Your task to perform on an android device: Search for jbl charge 4 on ebay, select the first entry, add it to the cart, then select checkout. Image 0: 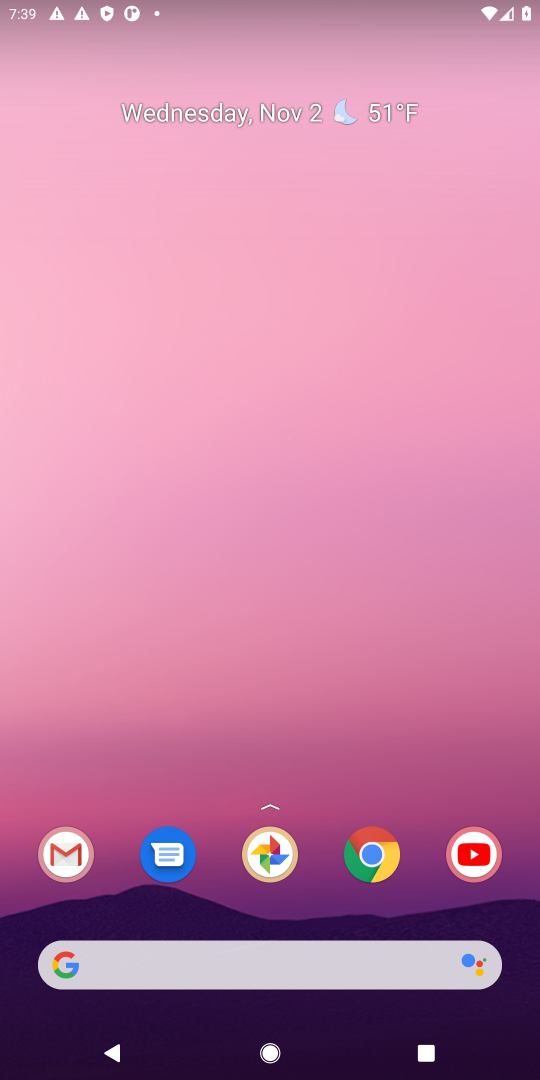
Step 0: click (361, 859)
Your task to perform on an android device: Search for jbl charge 4 on ebay, select the first entry, add it to the cart, then select checkout. Image 1: 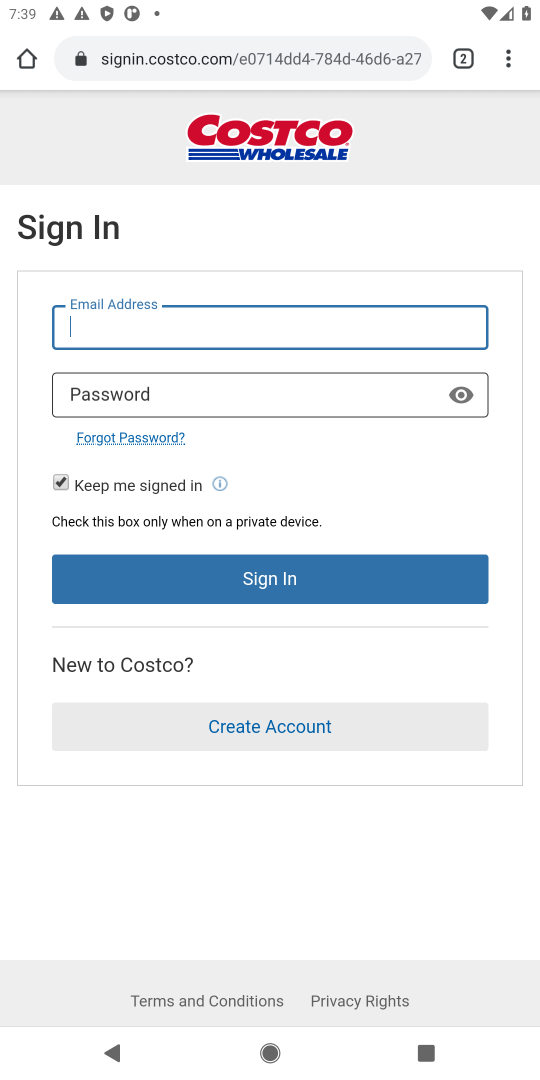
Step 1: click (456, 59)
Your task to perform on an android device: Search for jbl charge 4 on ebay, select the first entry, add it to the cart, then select checkout. Image 2: 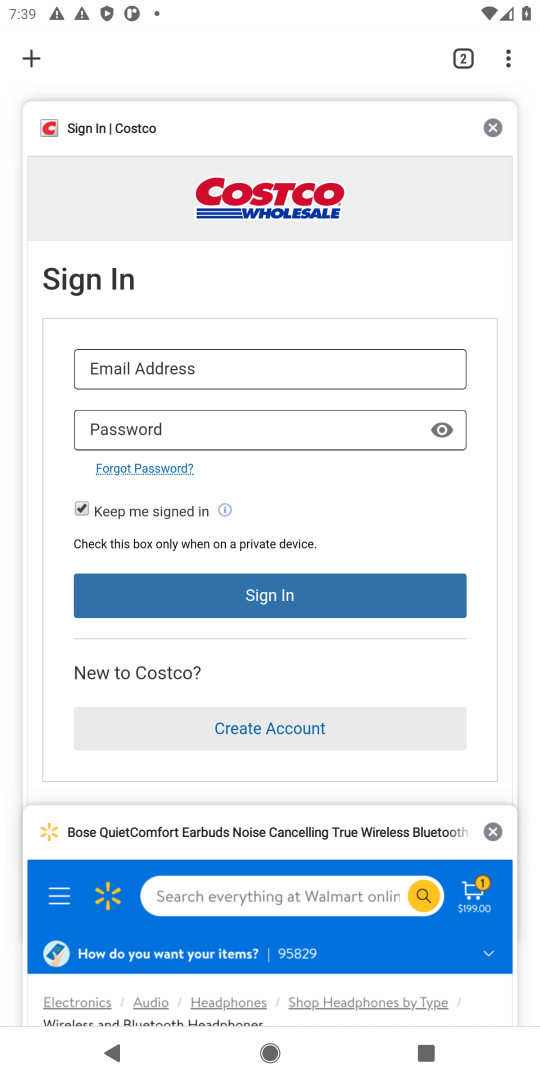
Step 2: click (29, 54)
Your task to perform on an android device: Search for jbl charge 4 on ebay, select the first entry, add it to the cart, then select checkout. Image 3: 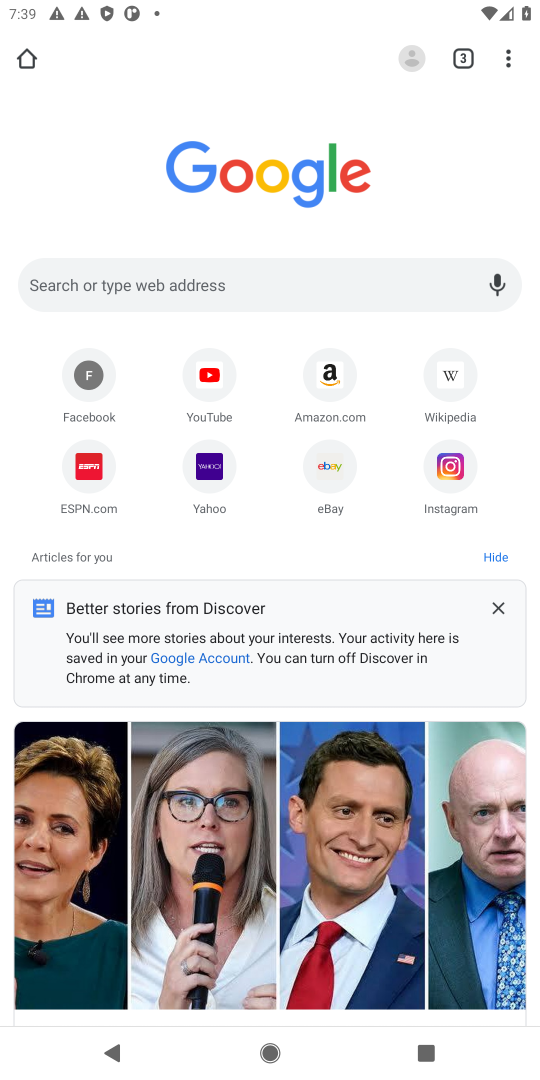
Step 3: click (328, 465)
Your task to perform on an android device: Search for jbl charge 4 on ebay, select the first entry, add it to the cart, then select checkout. Image 4: 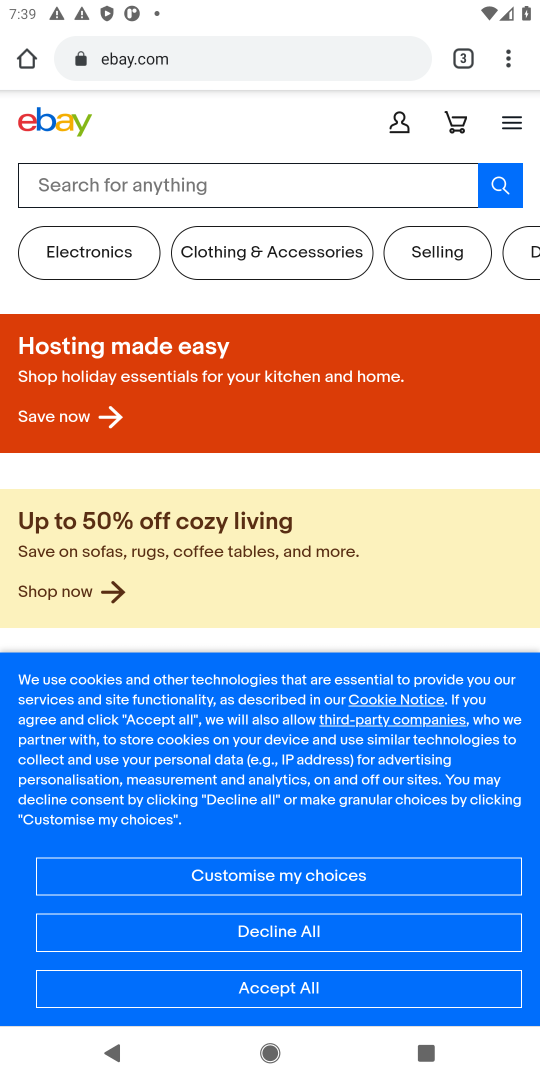
Step 4: click (256, 935)
Your task to perform on an android device: Search for jbl charge 4 on ebay, select the first entry, add it to the cart, then select checkout. Image 5: 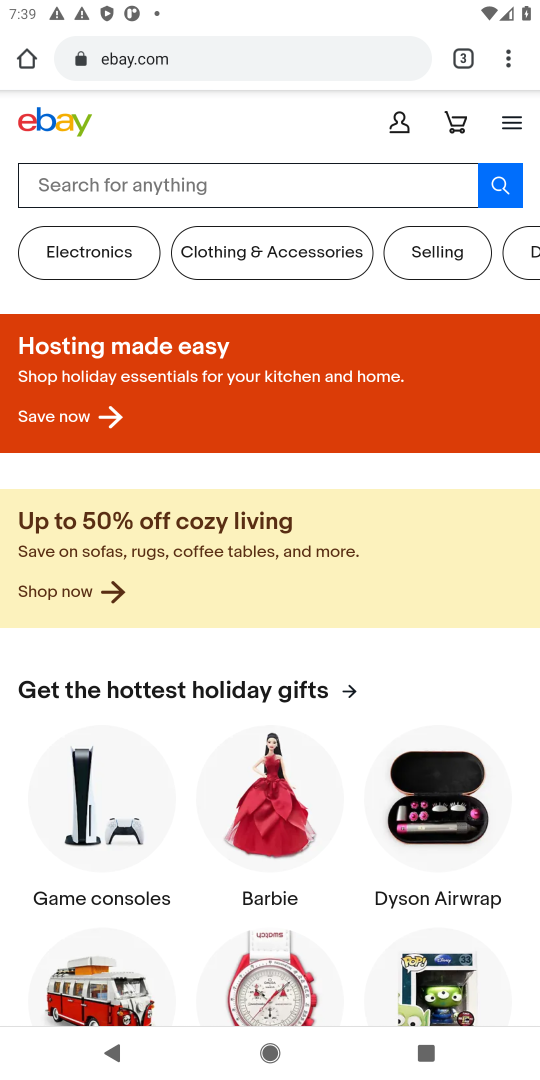
Step 5: click (148, 184)
Your task to perform on an android device: Search for jbl charge 4 on ebay, select the first entry, add it to the cart, then select checkout. Image 6: 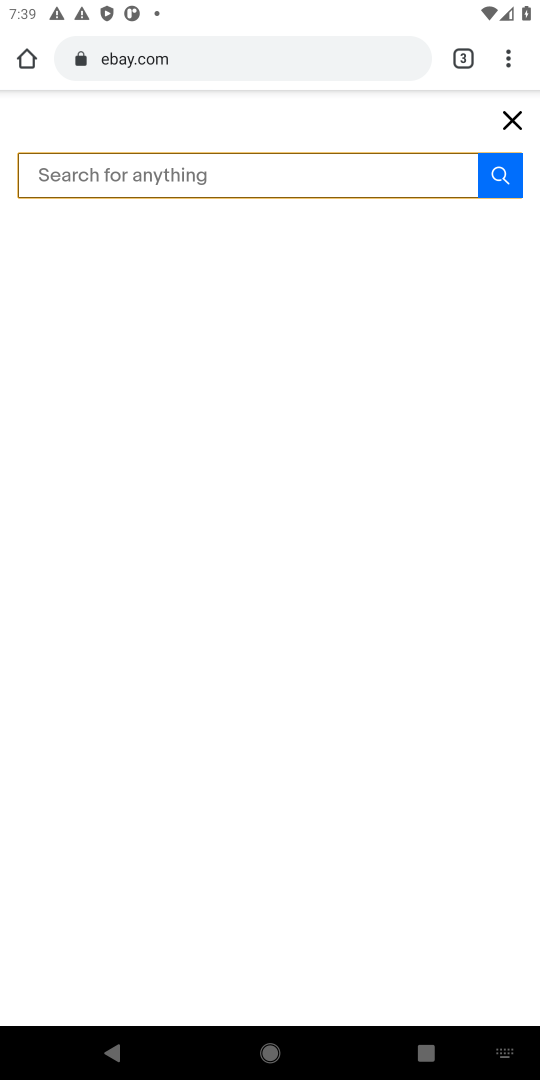
Step 6: type "jbl charge 4 "
Your task to perform on an android device: Search for jbl charge 4 on ebay, select the first entry, add it to the cart, then select checkout. Image 7: 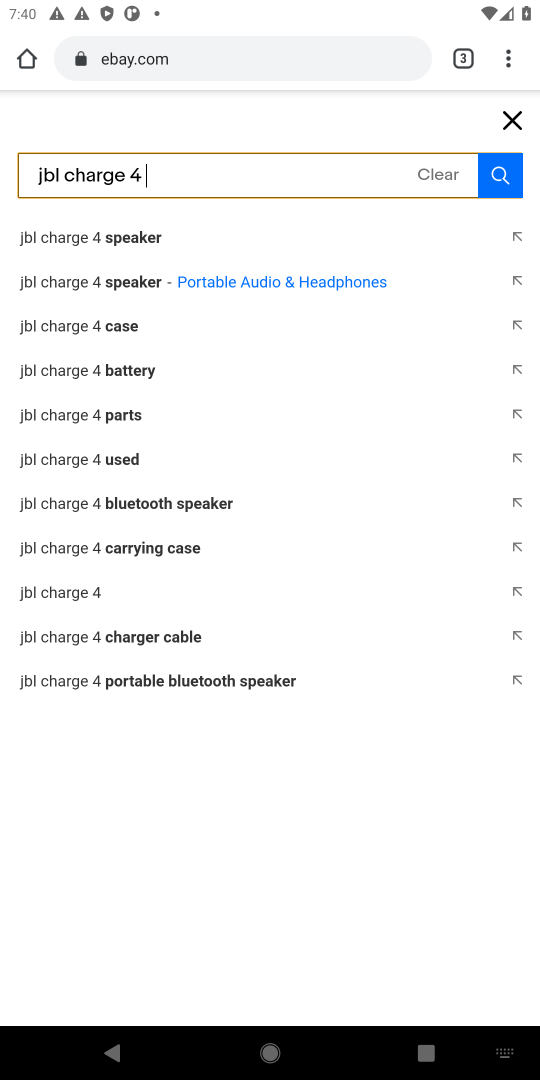
Step 7: click (87, 285)
Your task to perform on an android device: Search for jbl charge 4 on ebay, select the first entry, add it to the cart, then select checkout. Image 8: 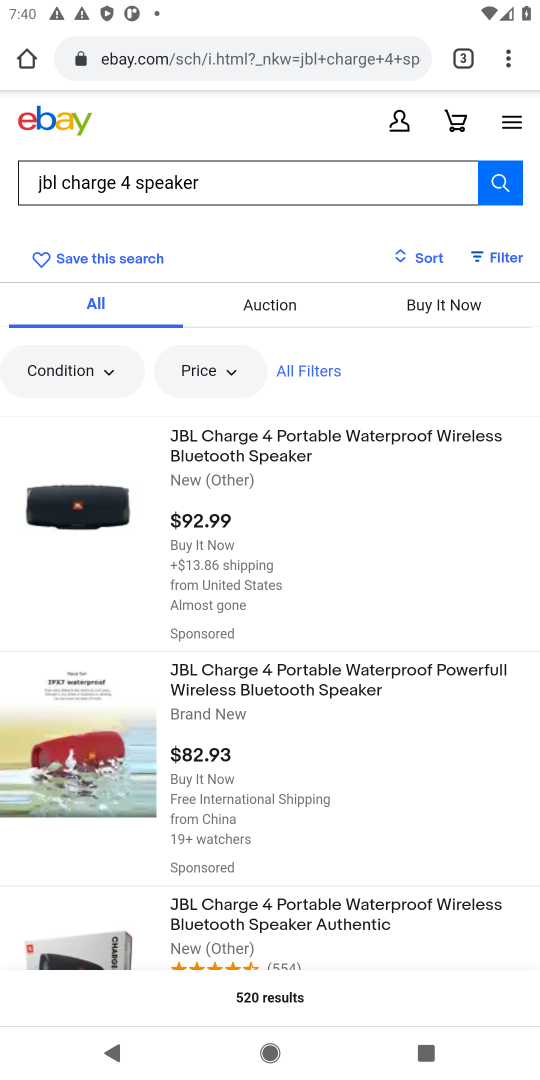
Step 8: click (242, 550)
Your task to perform on an android device: Search for jbl charge 4 on ebay, select the first entry, add it to the cart, then select checkout. Image 9: 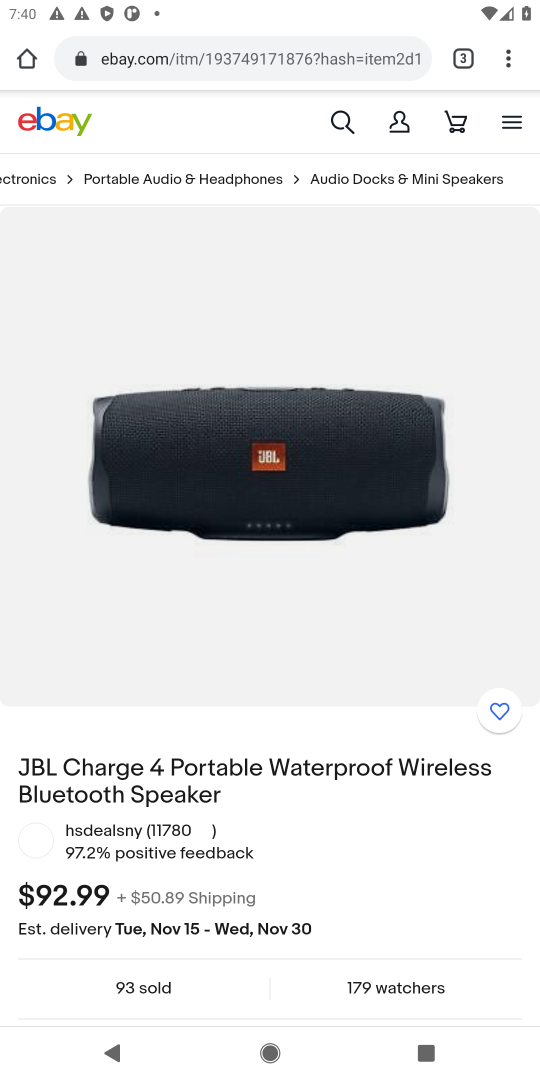
Step 9: drag from (348, 896) to (448, 136)
Your task to perform on an android device: Search for jbl charge 4 on ebay, select the first entry, add it to the cart, then select checkout. Image 10: 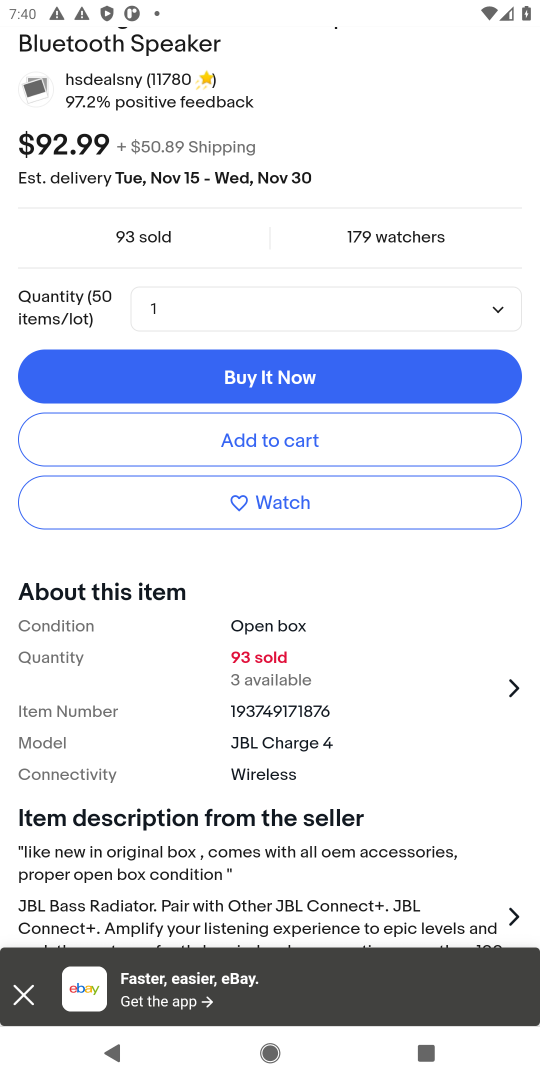
Step 10: click (283, 436)
Your task to perform on an android device: Search for jbl charge 4 on ebay, select the first entry, add it to the cart, then select checkout. Image 11: 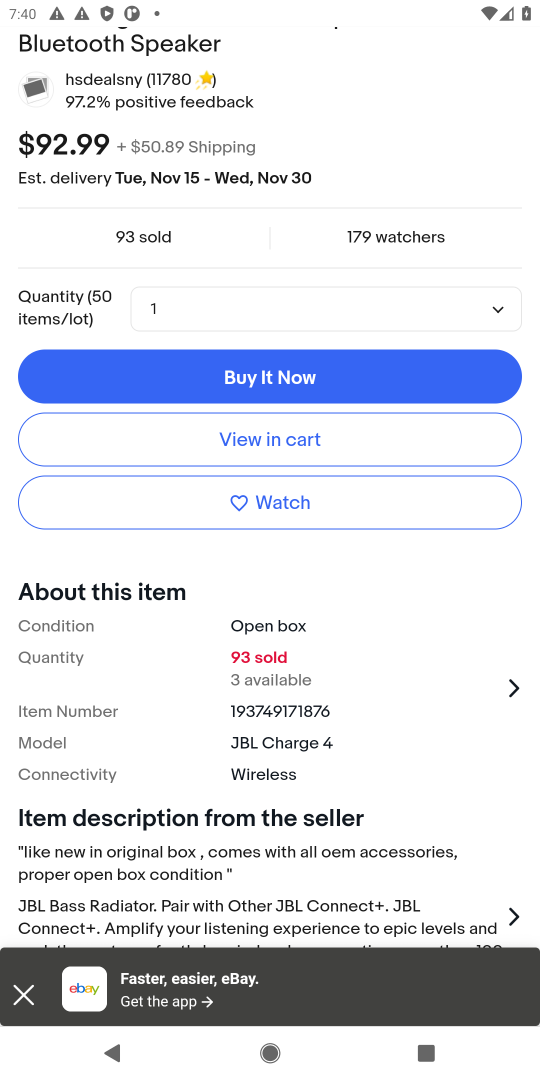
Step 11: click (283, 436)
Your task to perform on an android device: Search for jbl charge 4 on ebay, select the first entry, add it to the cart, then select checkout. Image 12: 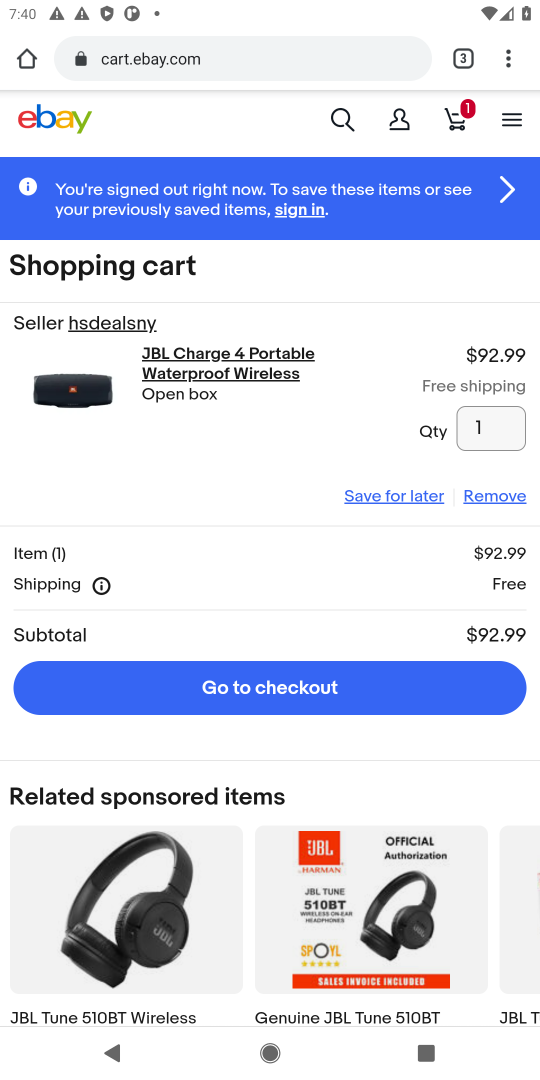
Step 12: click (252, 685)
Your task to perform on an android device: Search for jbl charge 4 on ebay, select the first entry, add it to the cart, then select checkout. Image 13: 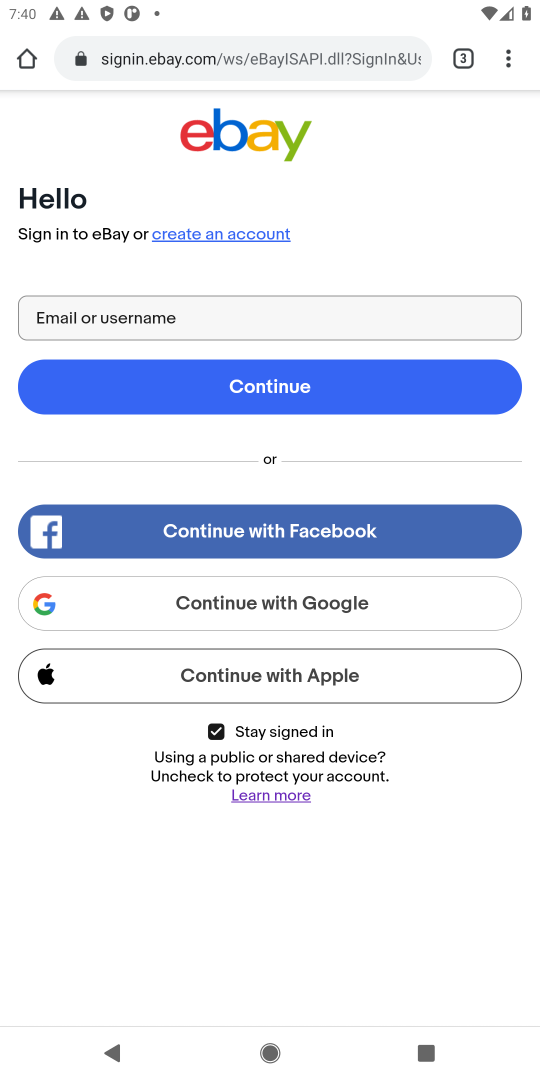
Step 13: task complete